Your task to perform on an android device: Go to eBay Image 0: 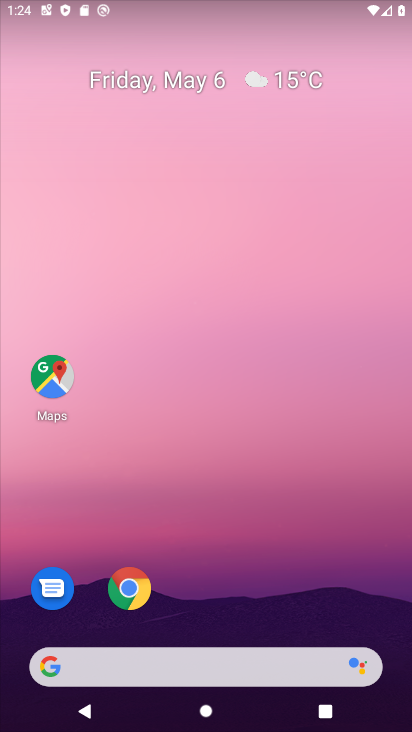
Step 0: drag from (190, 618) to (183, 204)
Your task to perform on an android device: Go to eBay Image 1: 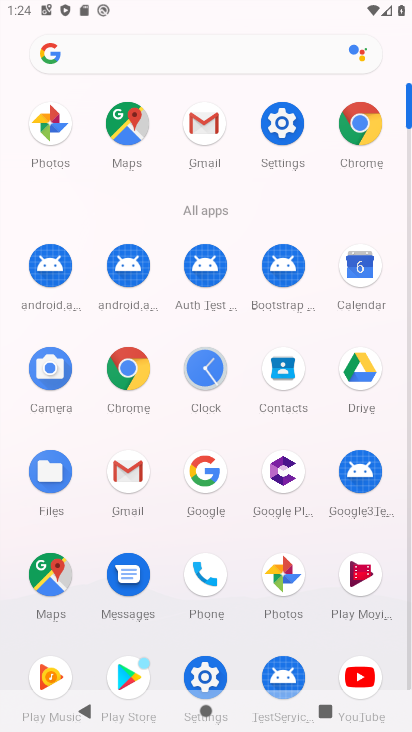
Step 1: click (191, 60)
Your task to perform on an android device: Go to eBay Image 2: 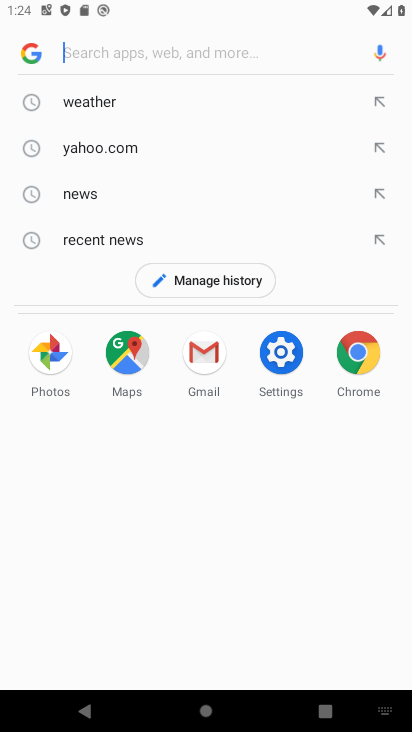
Step 2: type "ebay"
Your task to perform on an android device: Go to eBay Image 3: 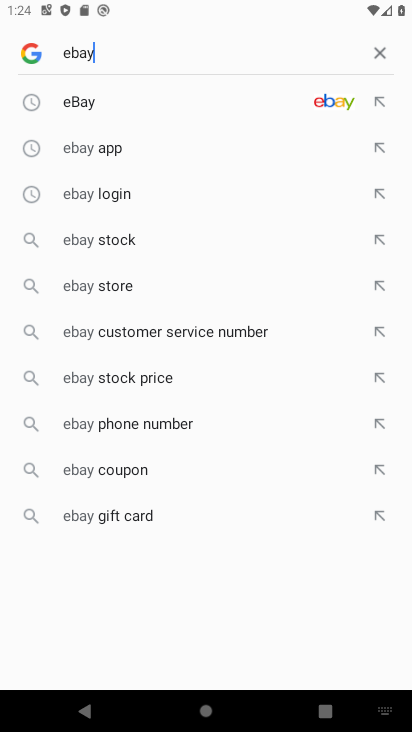
Step 3: click (73, 93)
Your task to perform on an android device: Go to eBay Image 4: 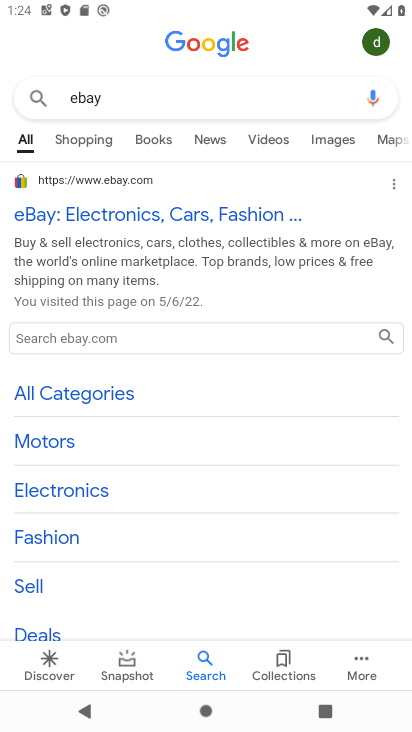
Step 4: click (108, 188)
Your task to perform on an android device: Go to eBay Image 5: 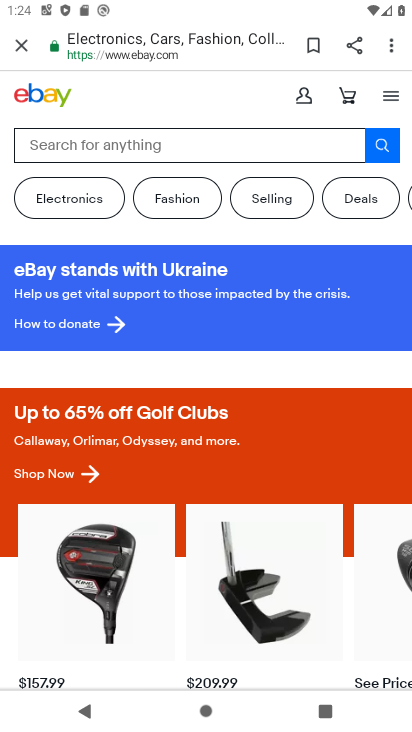
Step 5: task complete